Your task to perform on an android device: set the stopwatch Image 0: 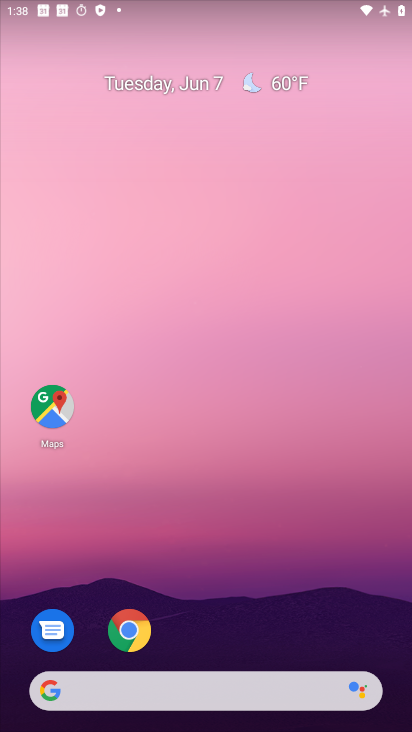
Step 0: drag from (361, 613) to (245, 59)
Your task to perform on an android device: set the stopwatch Image 1: 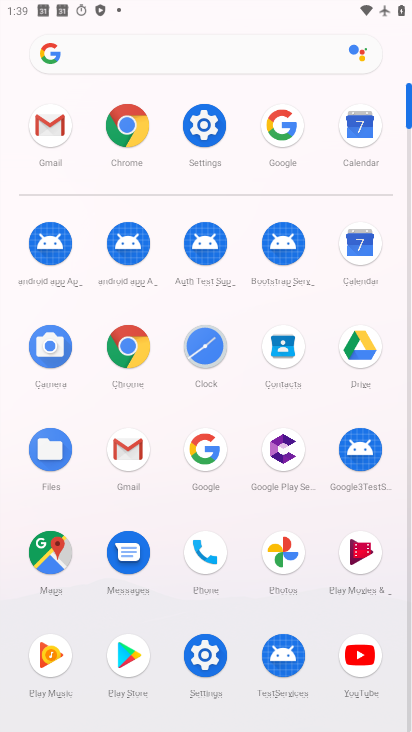
Step 1: click (217, 333)
Your task to perform on an android device: set the stopwatch Image 2: 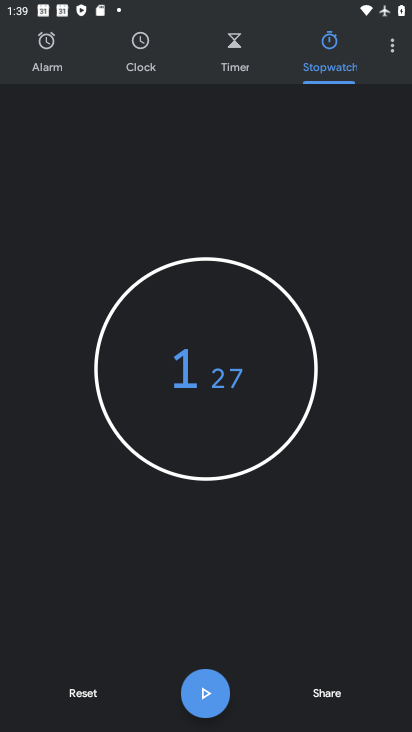
Step 2: task complete